Your task to perform on an android device: Play the last video I watched on Youtube Image 0: 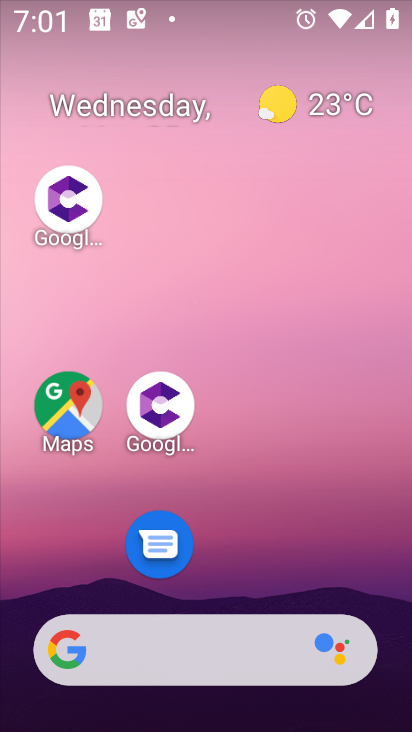
Step 0: drag from (353, 546) to (190, 49)
Your task to perform on an android device: Play the last video I watched on Youtube Image 1: 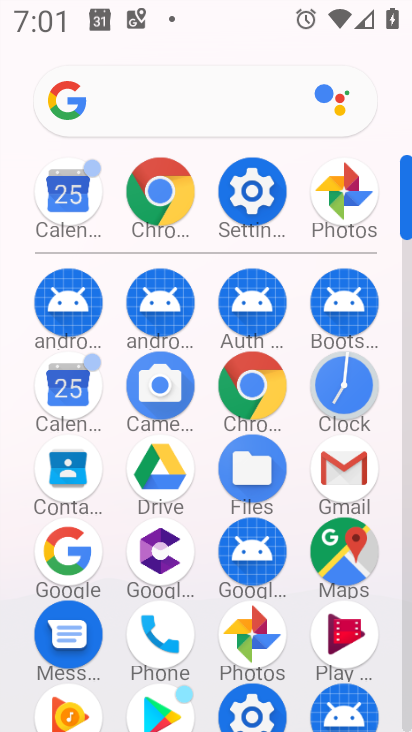
Step 1: drag from (213, 632) to (171, 271)
Your task to perform on an android device: Play the last video I watched on Youtube Image 2: 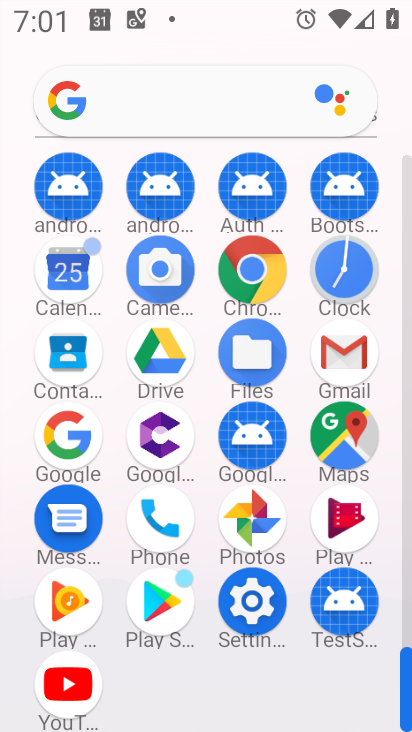
Step 2: click (71, 675)
Your task to perform on an android device: Play the last video I watched on Youtube Image 3: 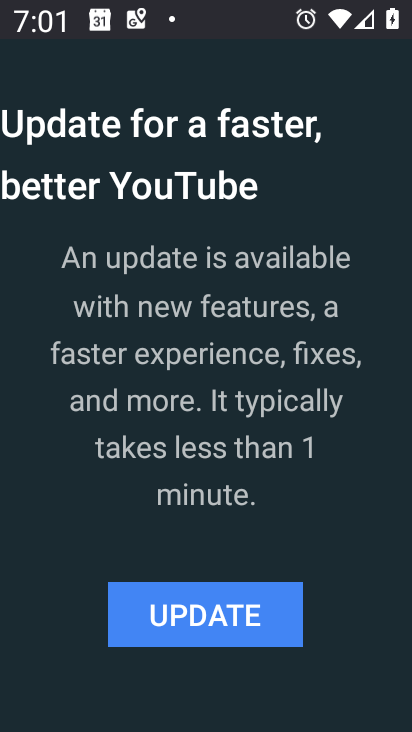
Step 3: click (186, 621)
Your task to perform on an android device: Play the last video I watched on Youtube Image 4: 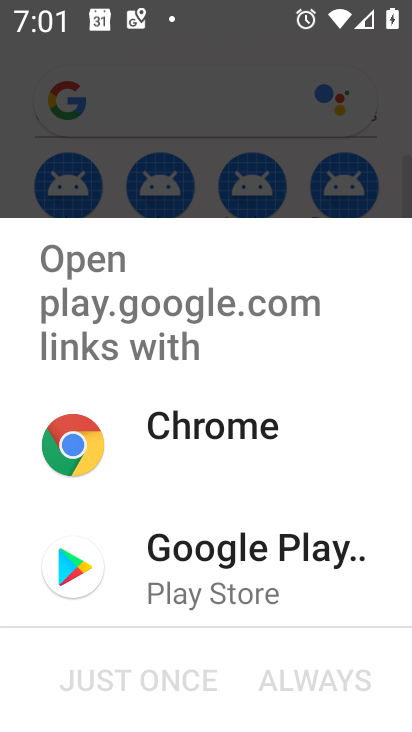
Step 4: click (186, 551)
Your task to perform on an android device: Play the last video I watched on Youtube Image 5: 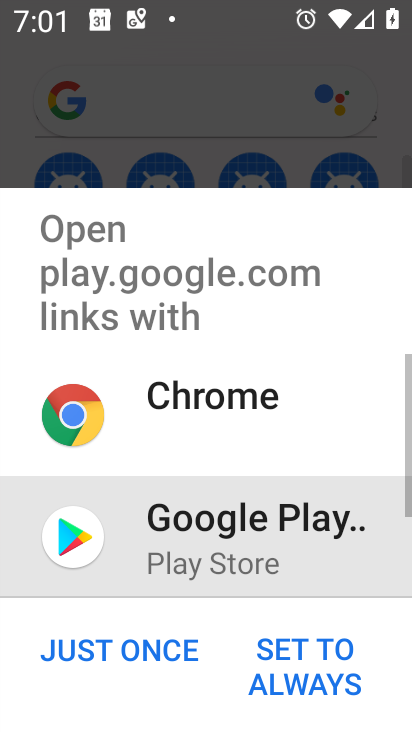
Step 5: click (130, 639)
Your task to perform on an android device: Play the last video I watched on Youtube Image 6: 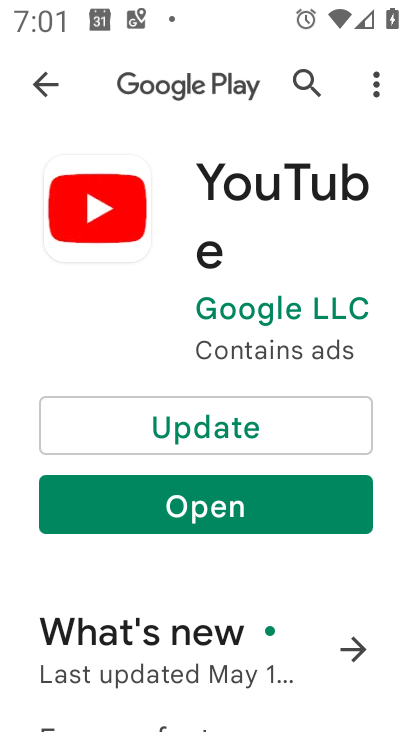
Step 6: click (251, 421)
Your task to perform on an android device: Play the last video I watched on Youtube Image 7: 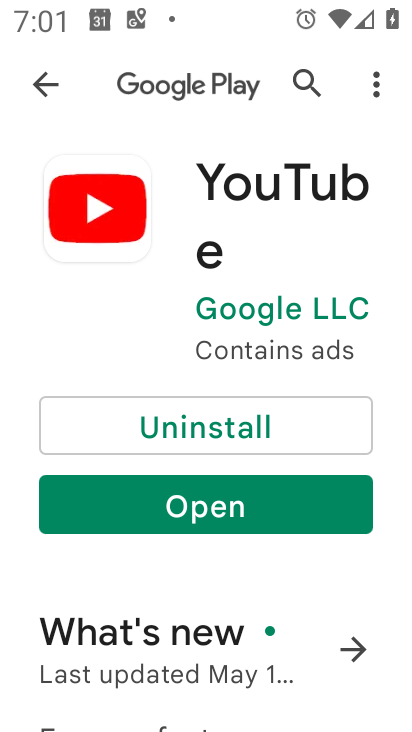
Step 7: click (245, 516)
Your task to perform on an android device: Play the last video I watched on Youtube Image 8: 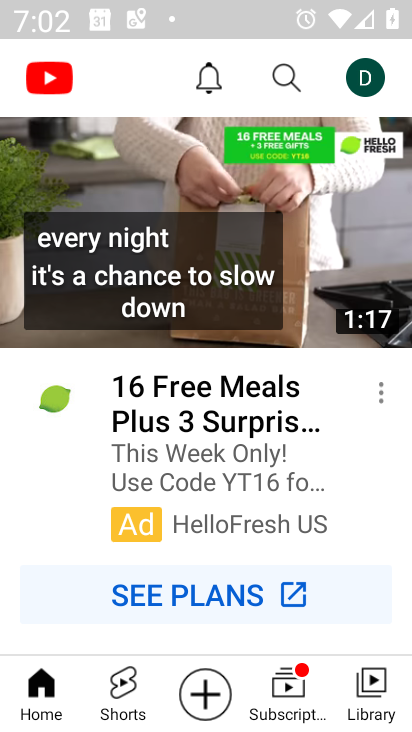
Step 8: click (369, 675)
Your task to perform on an android device: Play the last video I watched on Youtube Image 9: 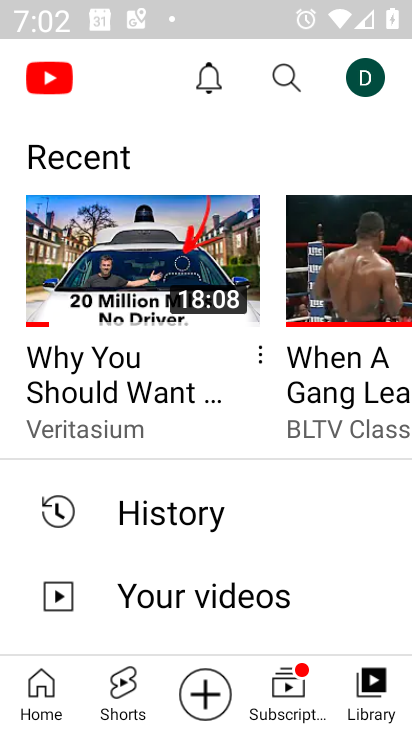
Step 9: click (128, 267)
Your task to perform on an android device: Play the last video I watched on Youtube Image 10: 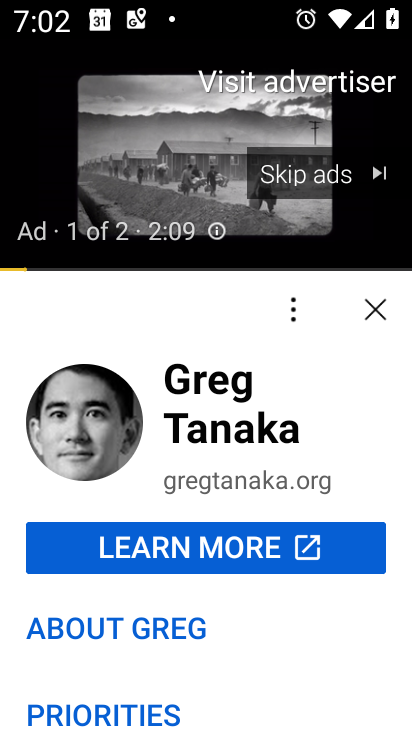
Step 10: click (311, 177)
Your task to perform on an android device: Play the last video I watched on Youtube Image 11: 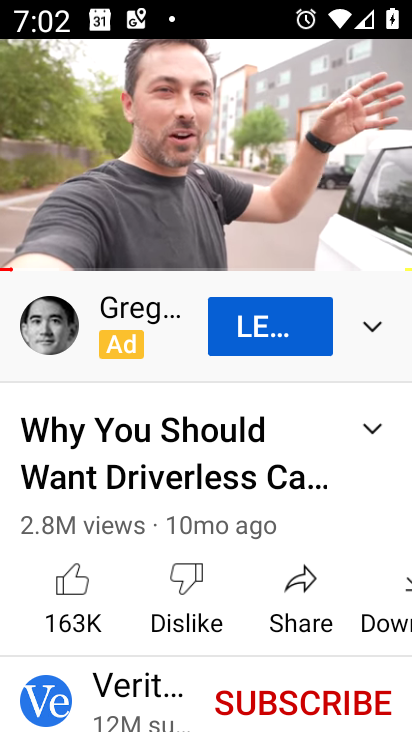
Step 11: task complete